Your task to perform on an android device: search for starred emails in the gmail app Image 0: 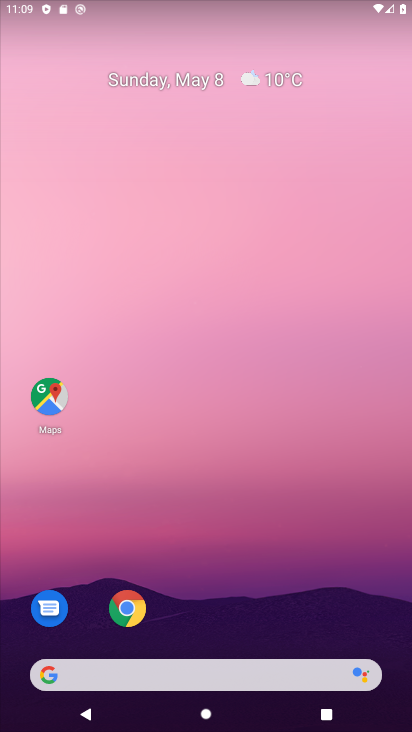
Step 0: drag from (216, 605) to (185, 219)
Your task to perform on an android device: search for starred emails in the gmail app Image 1: 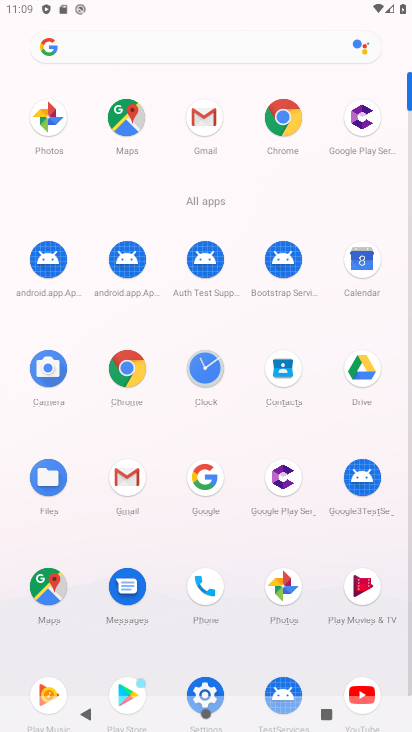
Step 1: click (204, 680)
Your task to perform on an android device: search for starred emails in the gmail app Image 2: 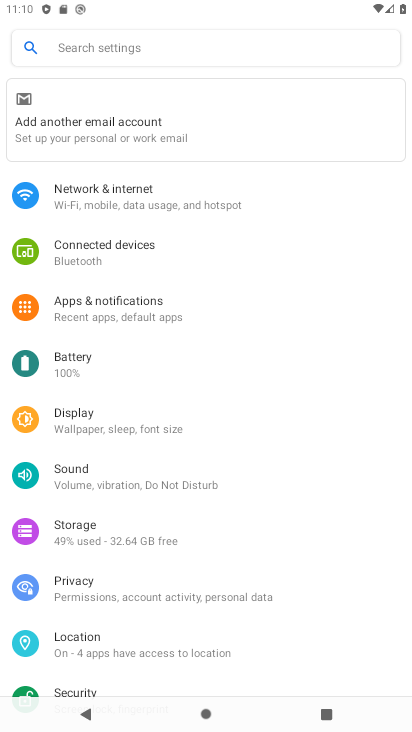
Step 2: press home button
Your task to perform on an android device: search for starred emails in the gmail app Image 3: 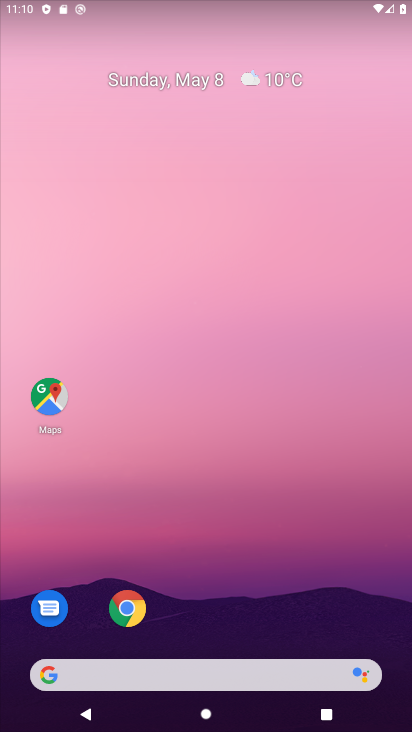
Step 3: drag from (281, 617) to (182, 44)
Your task to perform on an android device: search for starred emails in the gmail app Image 4: 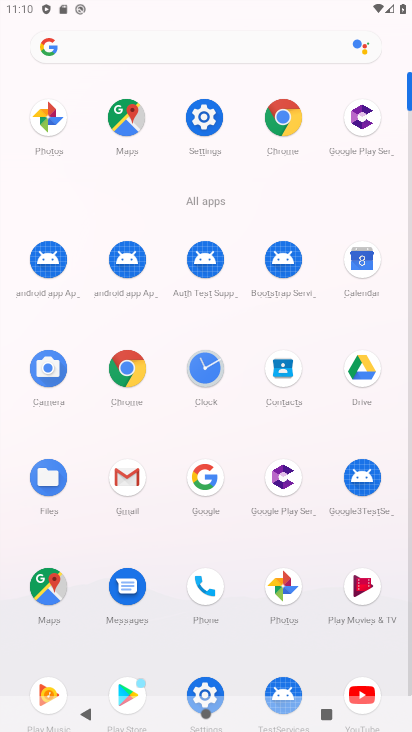
Step 4: click (127, 482)
Your task to perform on an android device: search for starred emails in the gmail app Image 5: 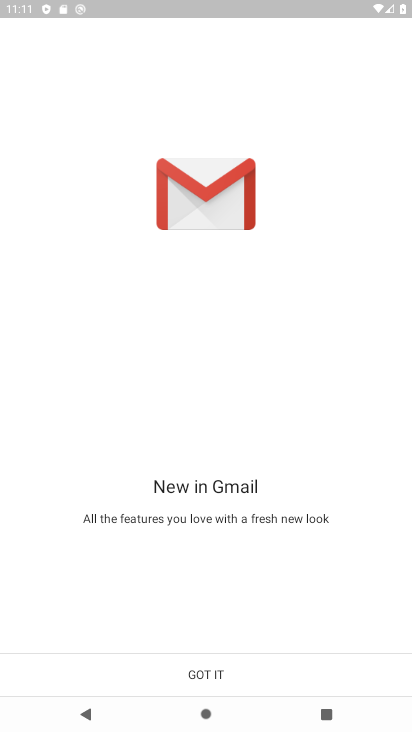
Step 5: click (224, 676)
Your task to perform on an android device: search for starred emails in the gmail app Image 6: 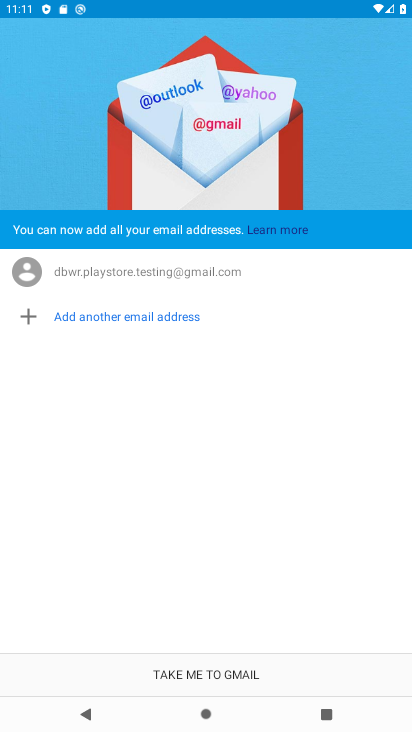
Step 6: click (224, 676)
Your task to perform on an android device: search for starred emails in the gmail app Image 7: 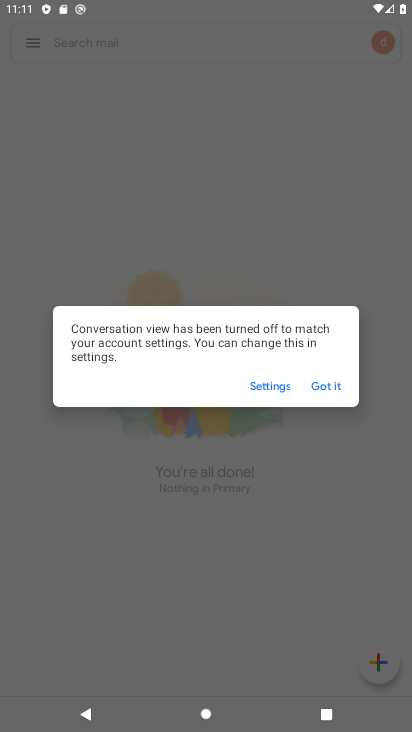
Step 7: click (319, 389)
Your task to perform on an android device: search for starred emails in the gmail app Image 8: 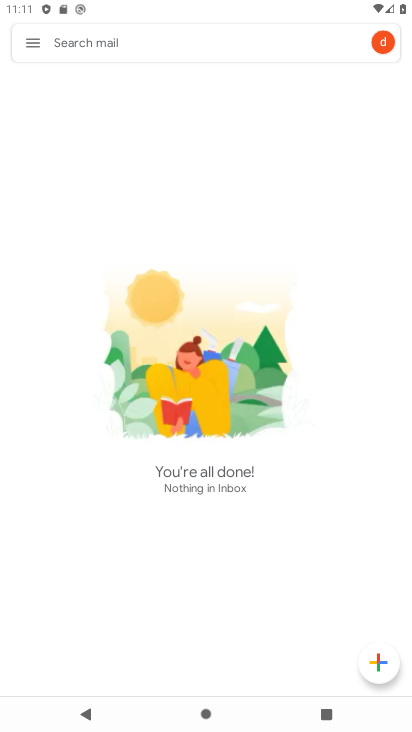
Step 8: click (36, 44)
Your task to perform on an android device: search for starred emails in the gmail app Image 9: 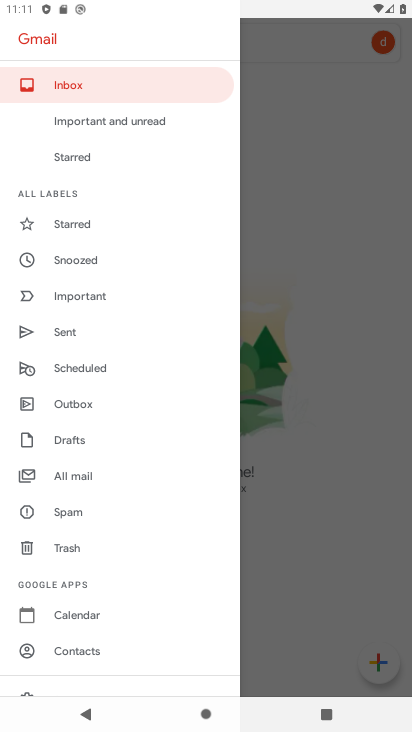
Step 9: click (75, 227)
Your task to perform on an android device: search for starred emails in the gmail app Image 10: 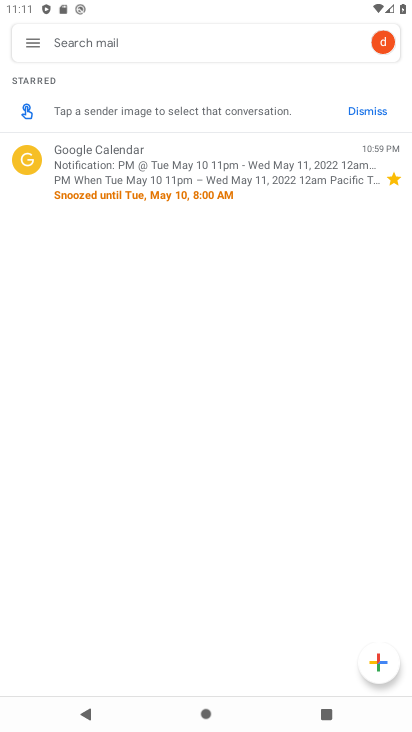
Step 10: task complete